Your task to perform on an android device: turn off notifications in google photos Image 0: 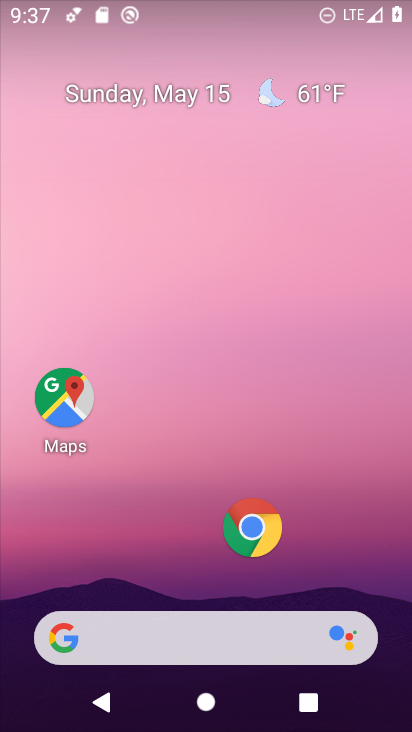
Step 0: press home button
Your task to perform on an android device: turn off notifications in google photos Image 1: 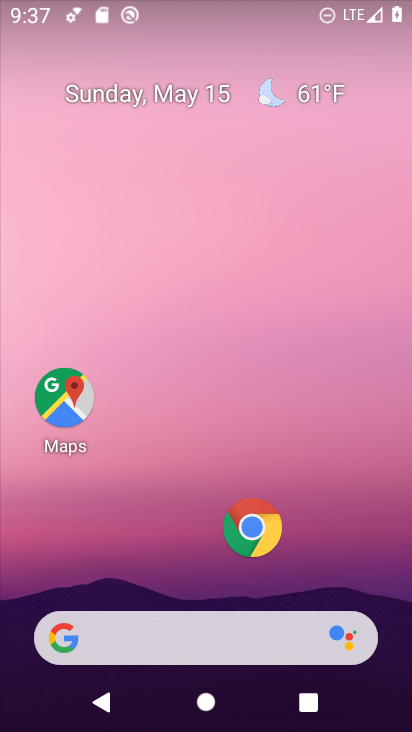
Step 1: drag from (198, 595) to (203, 94)
Your task to perform on an android device: turn off notifications in google photos Image 2: 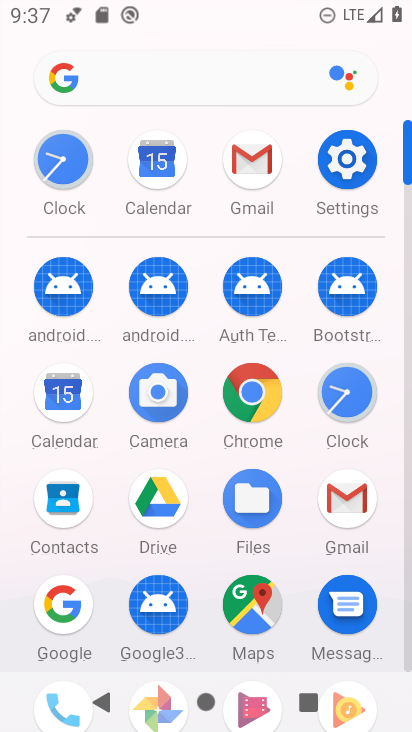
Step 2: drag from (203, 569) to (211, 86)
Your task to perform on an android device: turn off notifications in google photos Image 3: 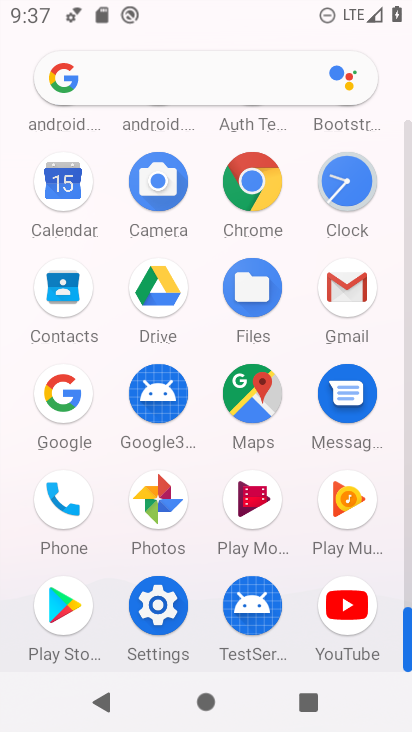
Step 3: click (159, 498)
Your task to perform on an android device: turn off notifications in google photos Image 4: 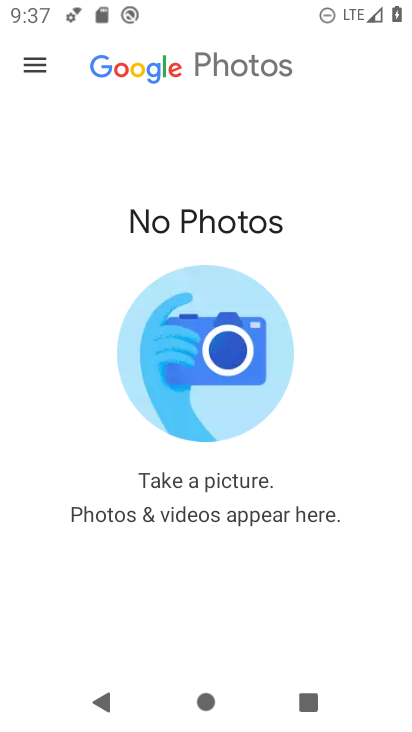
Step 4: click (40, 59)
Your task to perform on an android device: turn off notifications in google photos Image 5: 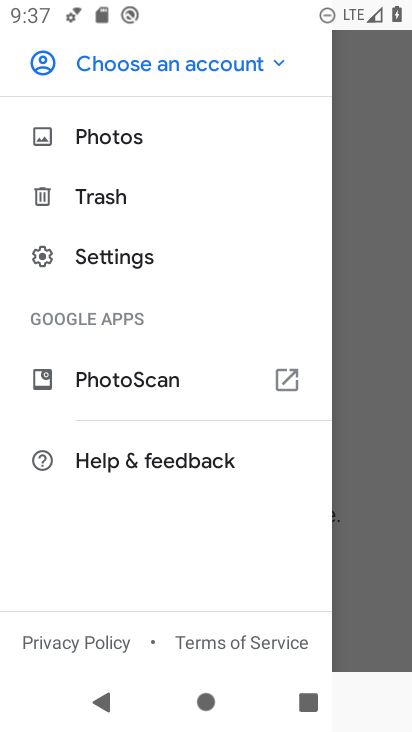
Step 5: click (115, 260)
Your task to perform on an android device: turn off notifications in google photos Image 6: 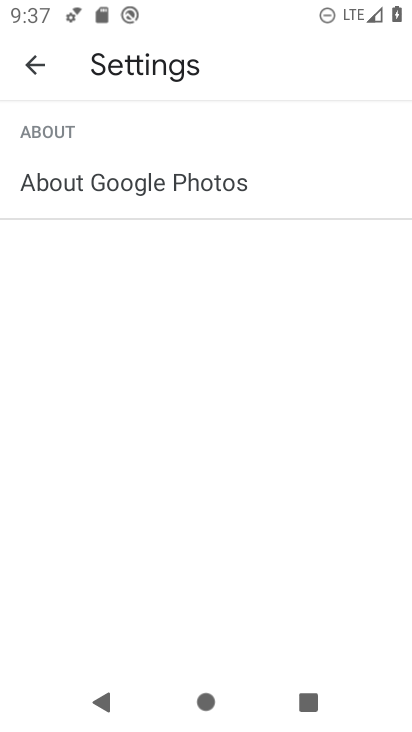
Step 6: click (113, 180)
Your task to perform on an android device: turn off notifications in google photos Image 7: 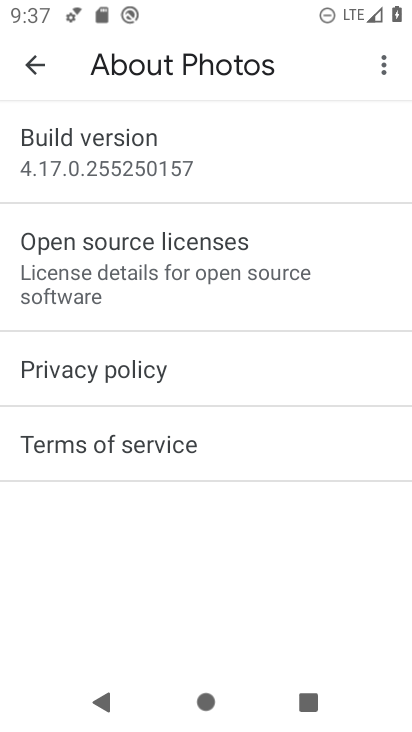
Step 7: click (39, 87)
Your task to perform on an android device: turn off notifications in google photos Image 8: 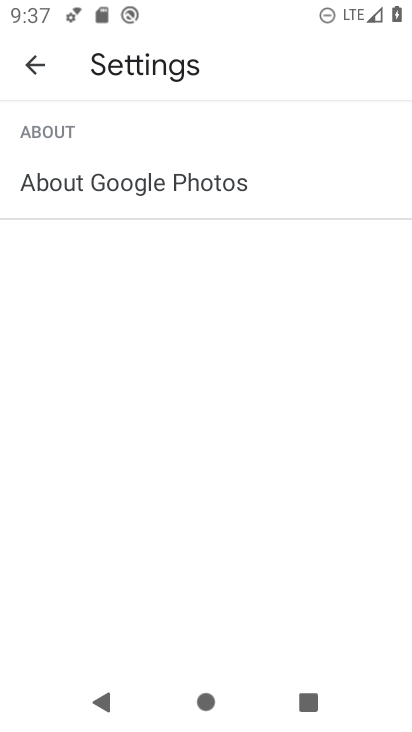
Step 8: click (39, 74)
Your task to perform on an android device: turn off notifications in google photos Image 9: 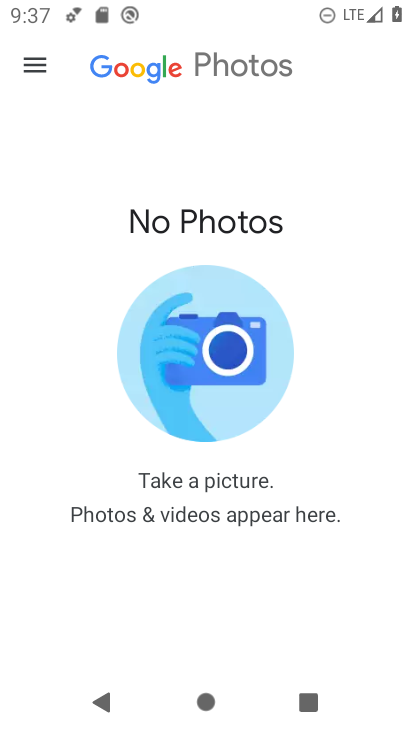
Step 9: click (39, 64)
Your task to perform on an android device: turn off notifications in google photos Image 10: 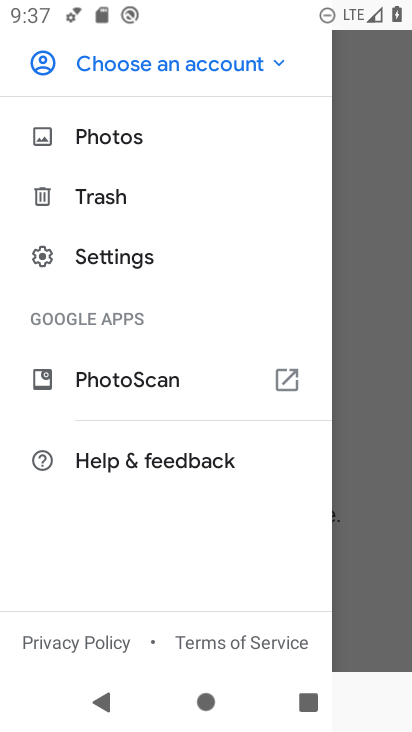
Step 10: click (139, 261)
Your task to perform on an android device: turn off notifications in google photos Image 11: 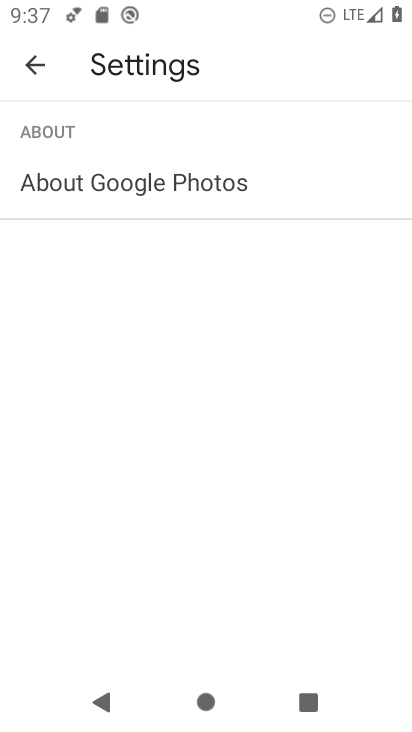
Step 11: click (27, 54)
Your task to perform on an android device: turn off notifications in google photos Image 12: 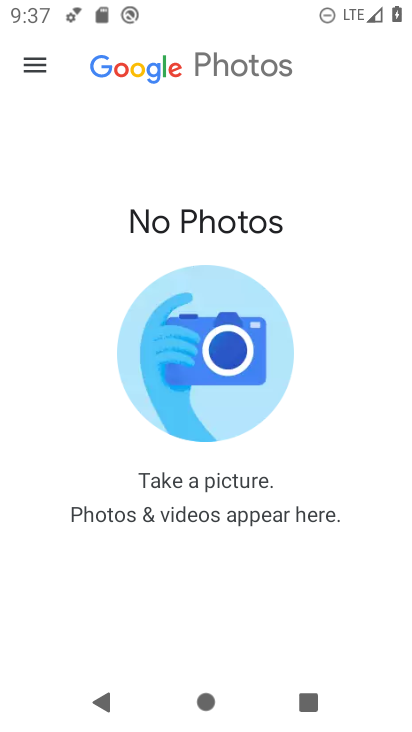
Step 12: click (37, 68)
Your task to perform on an android device: turn off notifications in google photos Image 13: 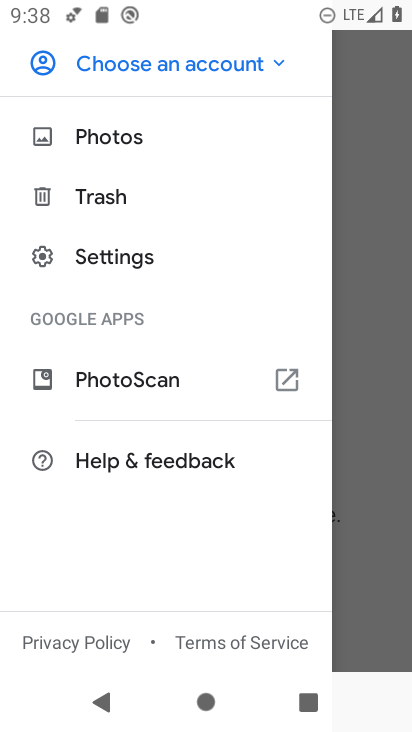
Step 13: click (279, 59)
Your task to perform on an android device: turn off notifications in google photos Image 14: 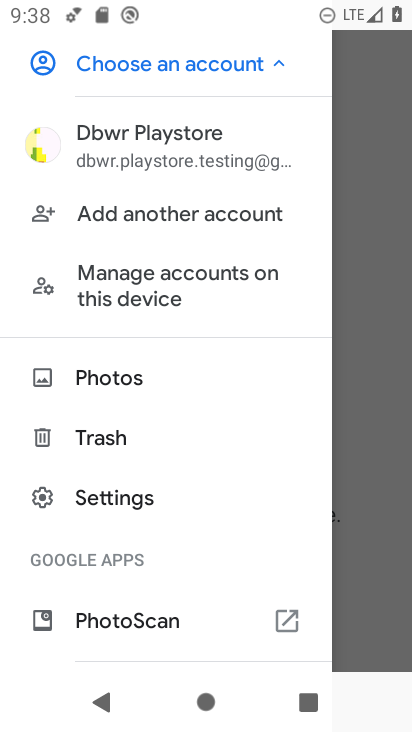
Step 14: click (142, 143)
Your task to perform on an android device: turn off notifications in google photos Image 15: 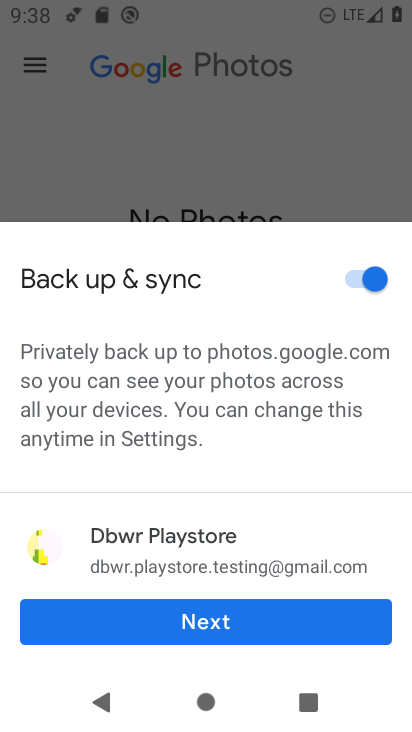
Step 15: click (206, 622)
Your task to perform on an android device: turn off notifications in google photos Image 16: 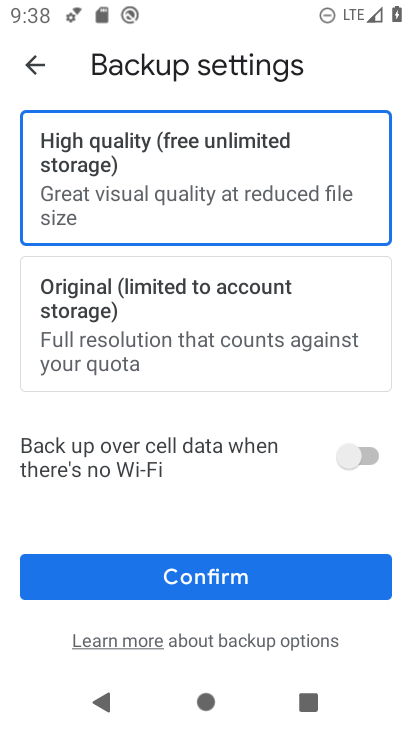
Step 16: click (206, 577)
Your task to perform on an android device: turn off notifications in google photos Image 17: 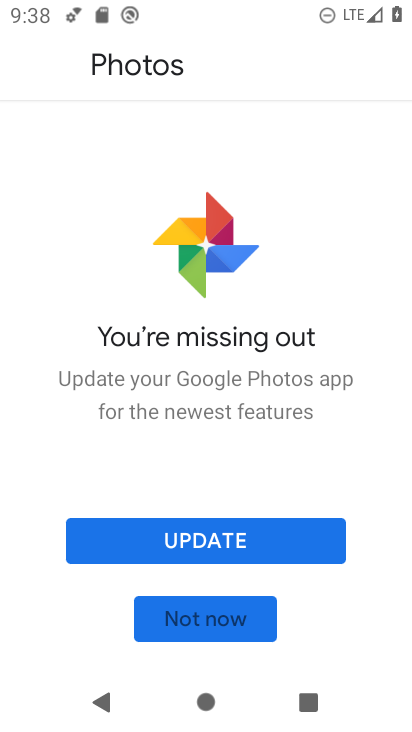
Step 17: click (202, 533)
Your task to perform on an android device: turn off notifications in google photos Image 18: 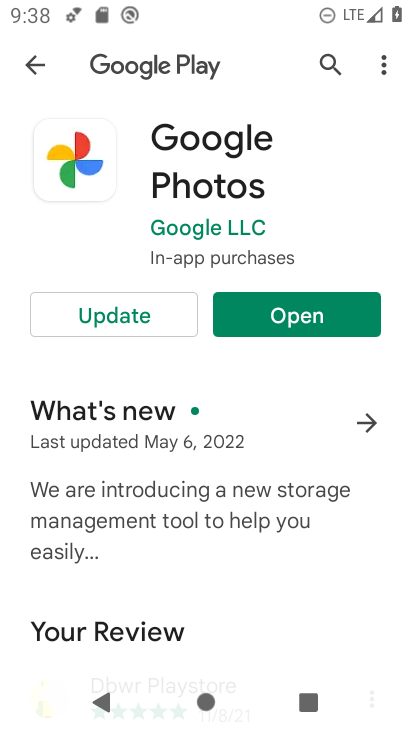
Step 18: click (105, 303)
Your task to perform on an android device: turn off notifications in google photos Image 19: 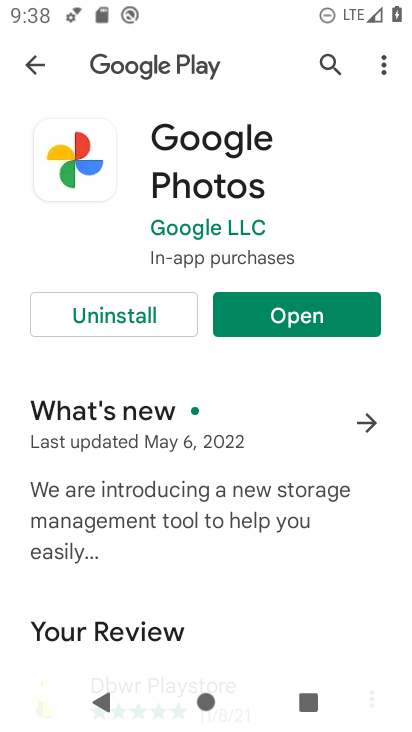
Step 19: click (296, 326)
Your task to perform on an android device: turn off notifications in google photos Image 20: 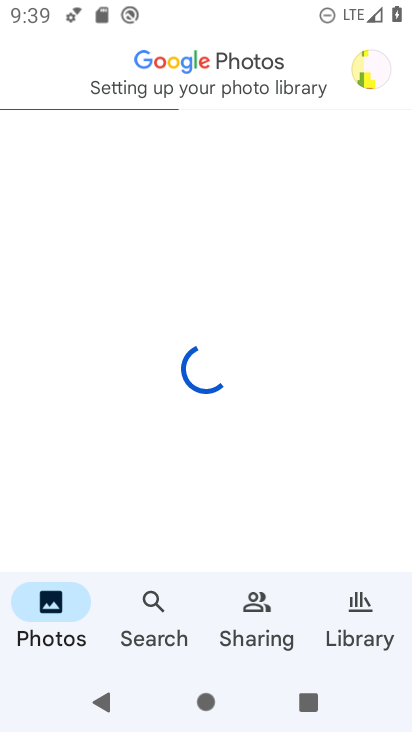
Step 20: click (350, 72)
Your task to perform on an android device: turn off notifications in google photos Image 21: 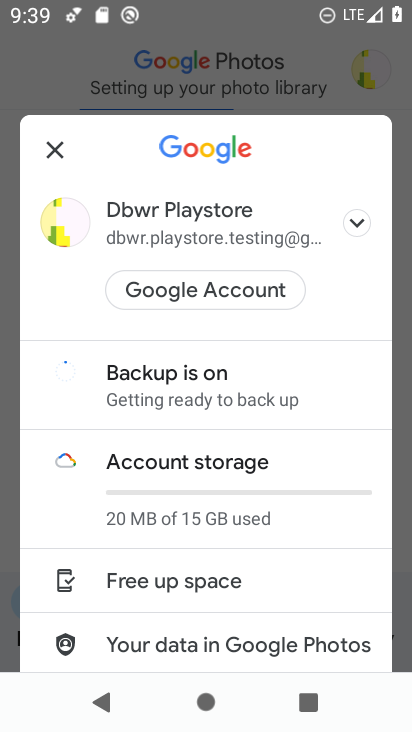
Step 21: drag from (179, 565) to (168, 192)
Your task to perform on an android device: turn off notifications in google photos Image 22: 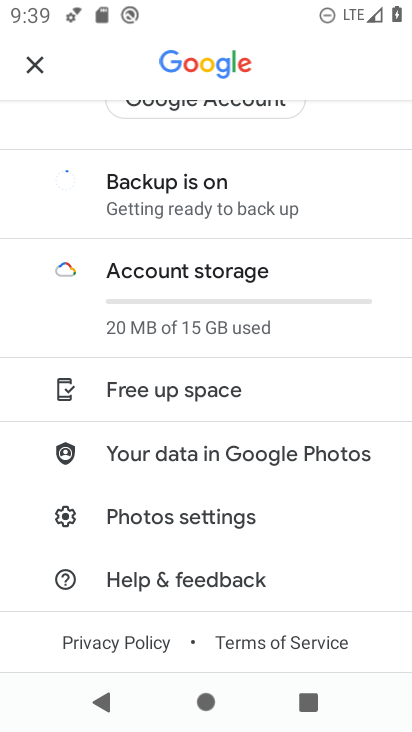
Step 22: click (195, 513)
Your task to perform on an android device: turn off notifications in google photos Image 23: 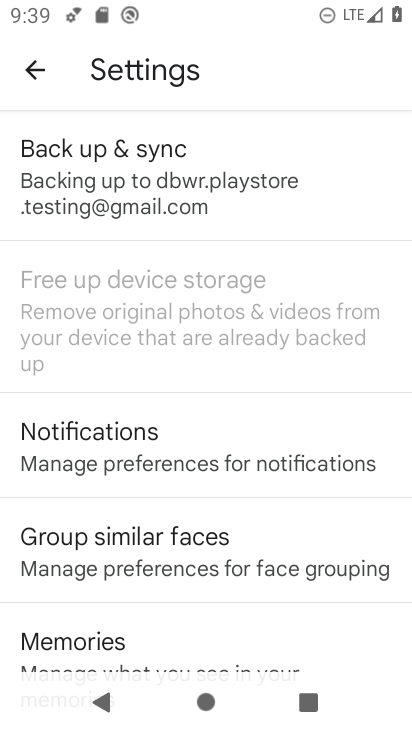
Step 23: click (132, 450)
Your task to perform on an android device: turn off notifications in google photos Image 24: 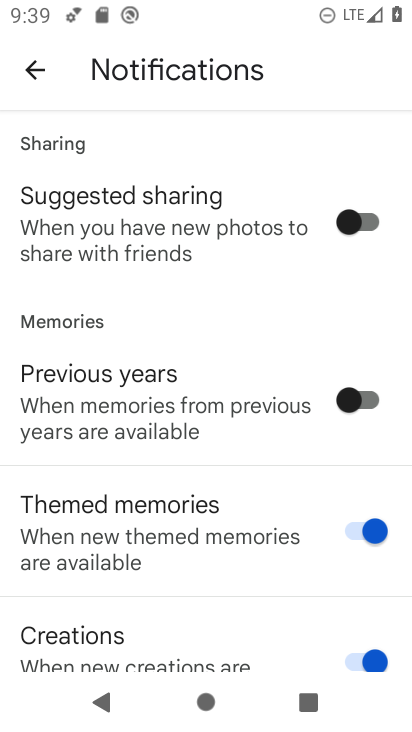
Step 24: drag from (158, 538) to (158, 171)
Your task to perform on an android device: turn off notifications in google photos Image 25: 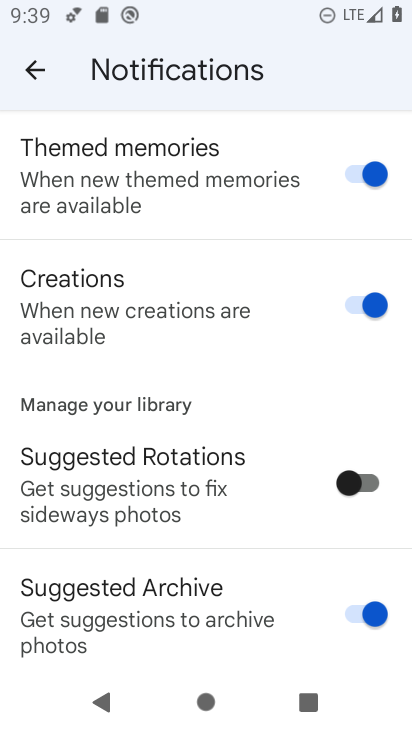
Step 25: drag from (167, 630) to (158, 172)
Your task to perform on an android device: turn off notifications in google photos Image 26: 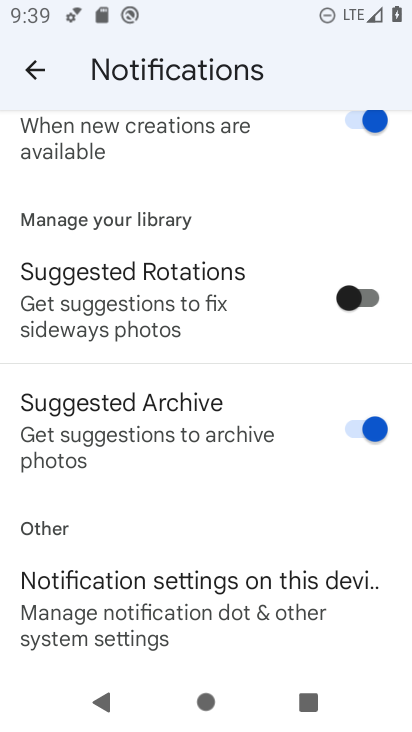
Step 26: click (158, 611)
Your task to perform on an android device: turn off notifications in google photos Image 27: 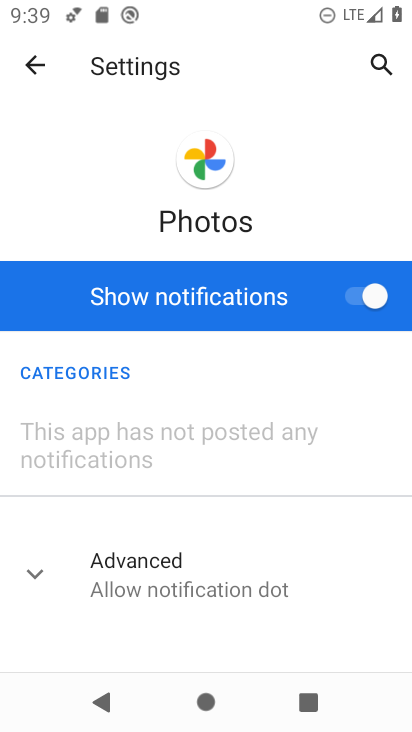
Step 27: click (353, 297)
Your task to perform on an android device: turn off notifications in google photos Image 28: 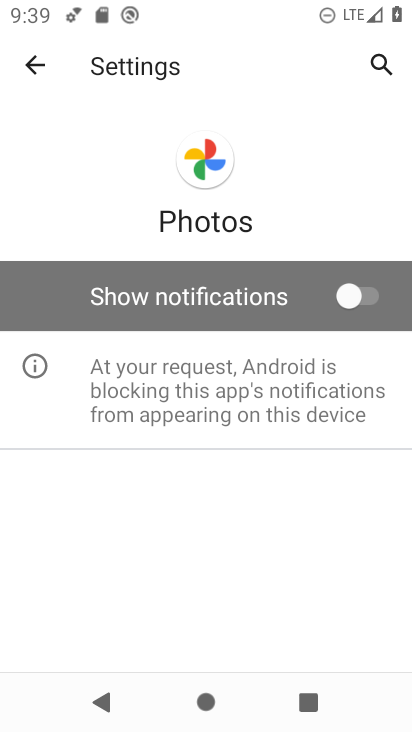
Step 28: task complete